Your task to perform on an android device: Go to calendar. Show me events next week Image 0: 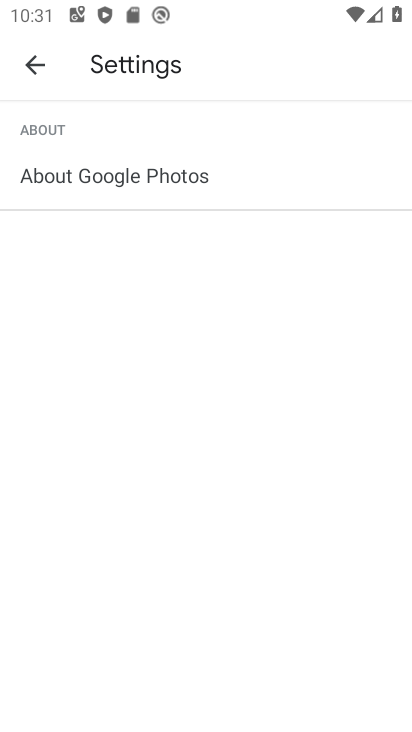
Step 0: press home button
Your task to perform on an android device: Go to calendar. Show me events next week Image 1: 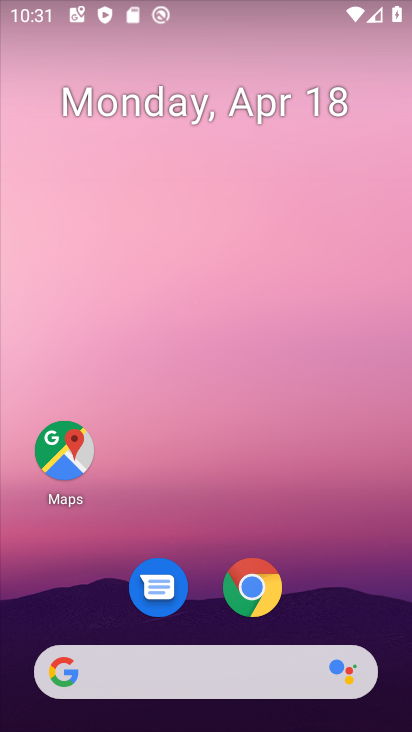
Step 1: drag from (363, 539) to (360, 101)
Your task to perform on an android device: Go to calendar. Show me events next week Image 2: 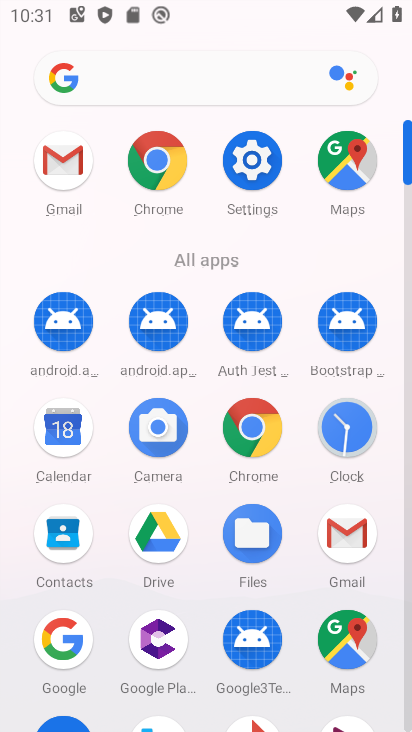
Step 2: click (49, 421)
Your task to perform on an android device: Go to calendar. Show me events next week Image 3: 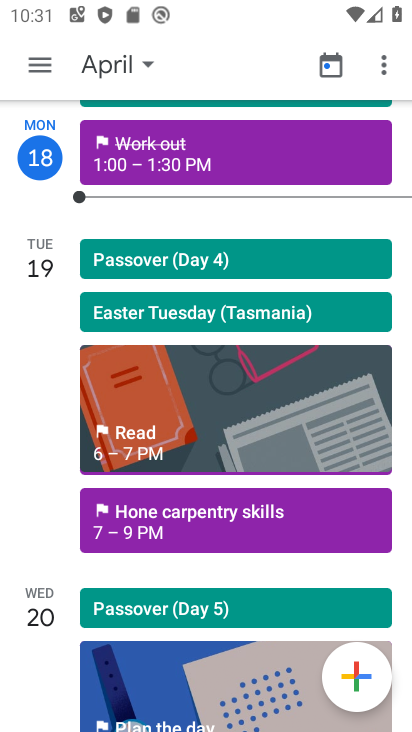
Step 3: click (109, 70)
Your task to perform on an android device: Go to calendar. Show me events next week Image 4: 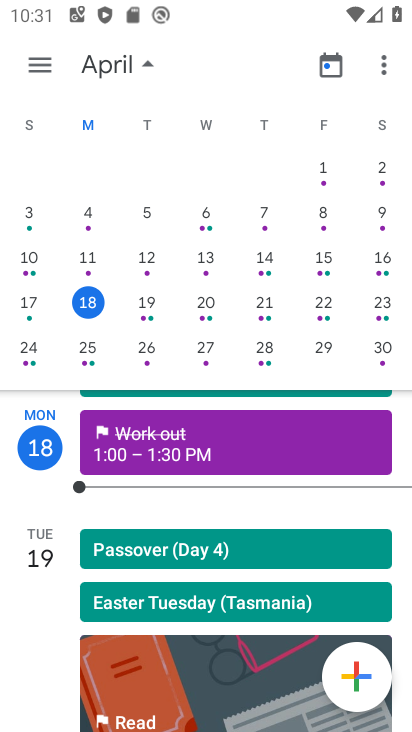
Step 4: click (24, 341)
Your task to perform on an android device: Go to calendar. Show me events next week Image 5: 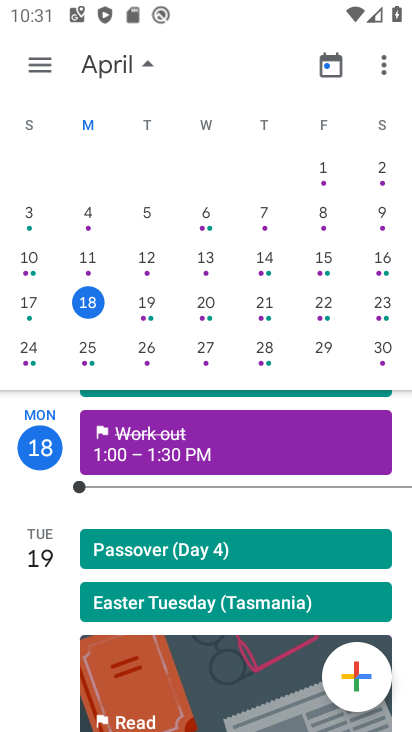
Step 5: click (26, 343)
Your task to perform on an android device: Go to calendar. Show me events next week Image 6: 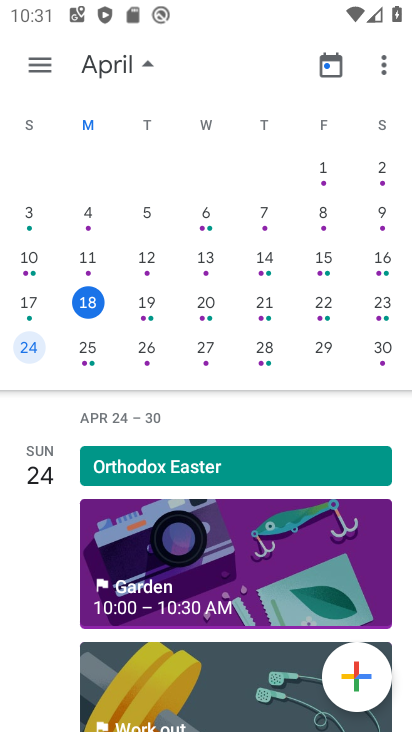
Step 6: task complete